Your task to perform on an android device: Open network settings Image 0: 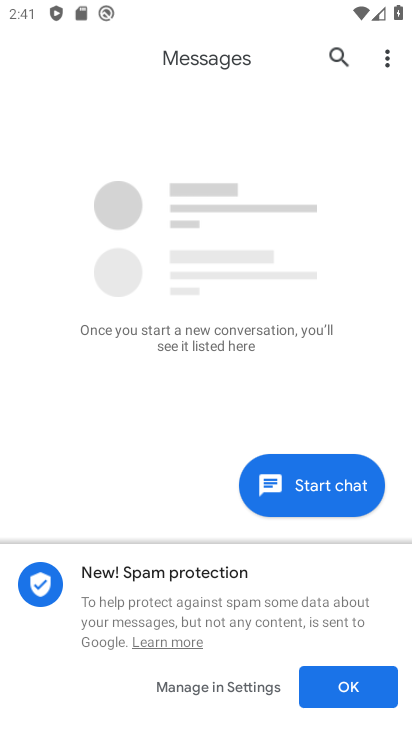
Step 0: press home button
Your task to perform on an android device: Open network settings Image 1: 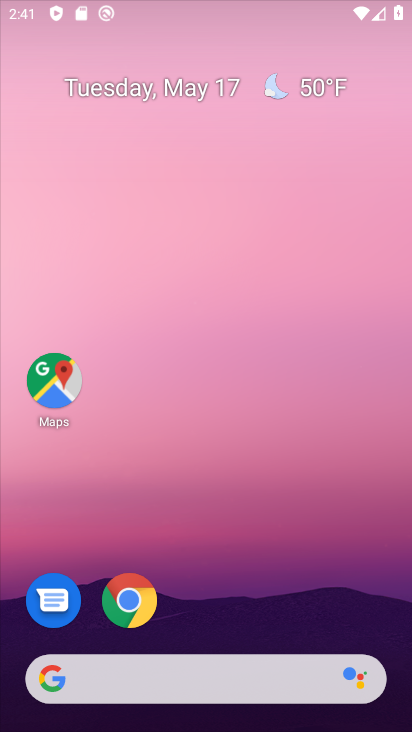
Step 1: drag from (291, 572) to (267, 143)
Your task to perform on an android device: Open network settings Image 2: 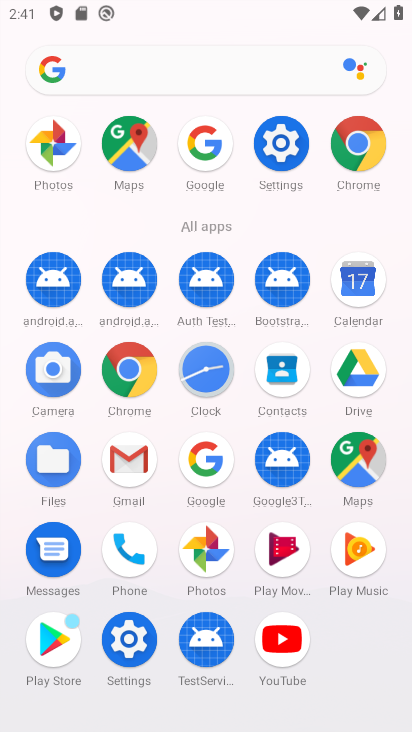
Step 2: click (281, 160)
Your task to perform on an android device: Open network settings Image 3: 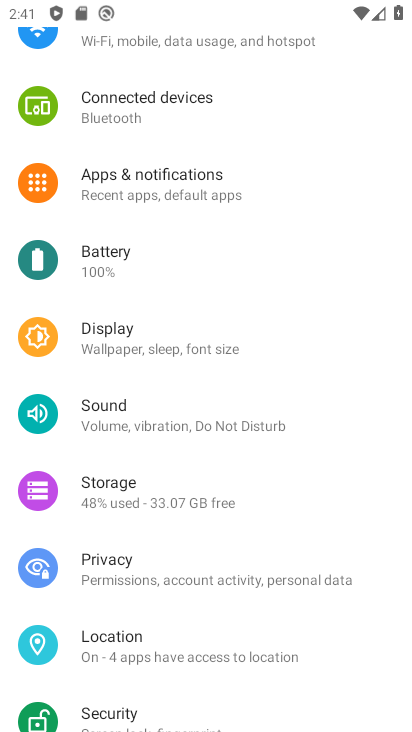
Step 3: click (191, 51)
Your task to perform on an android device: Open network settings Image 4: 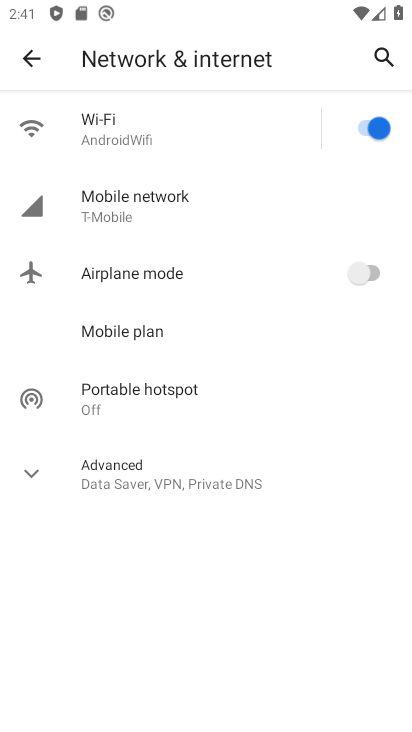
Step 4: task complete